Your task to perform on an android device: open a bookmark in the chrome app Image 0: 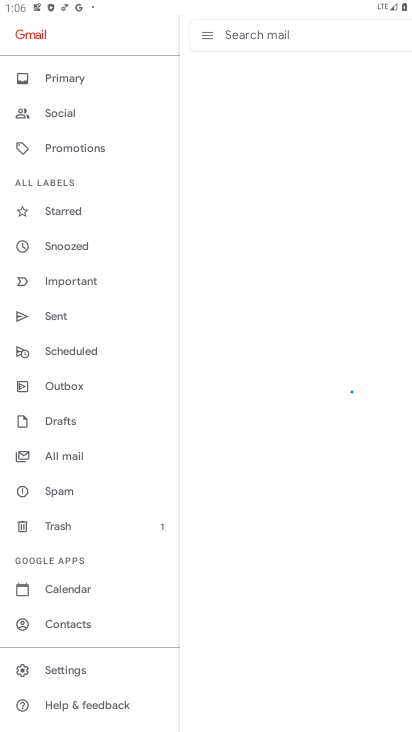
Step 0: press home button
Your task to perform on an android device: open a bookmark in the chrome app Image 1: 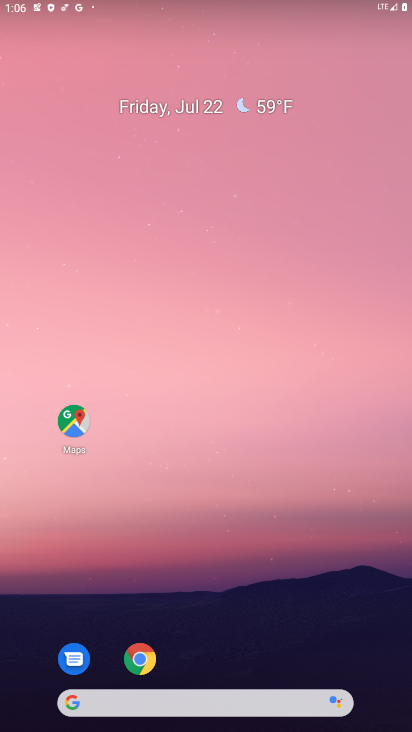
Step 1: drag from (278, 519) to (197, 5)
Your task to perform on an android device: open a bookmark in the chrome app Image 2: 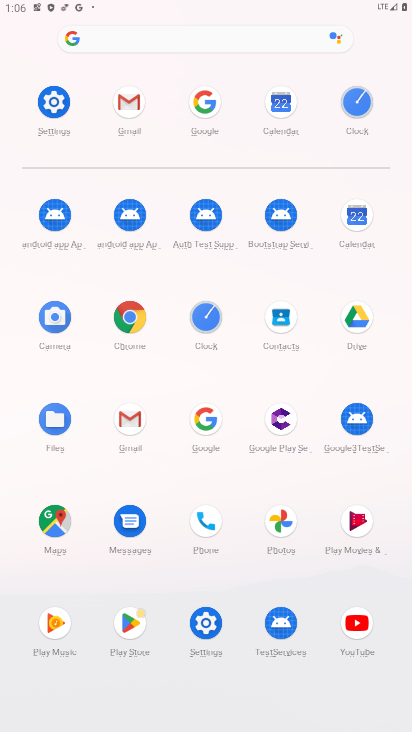
Step 2: click (125, 334)
Your task to perform on an android device: open a bookmark in the chrome app Image 3: 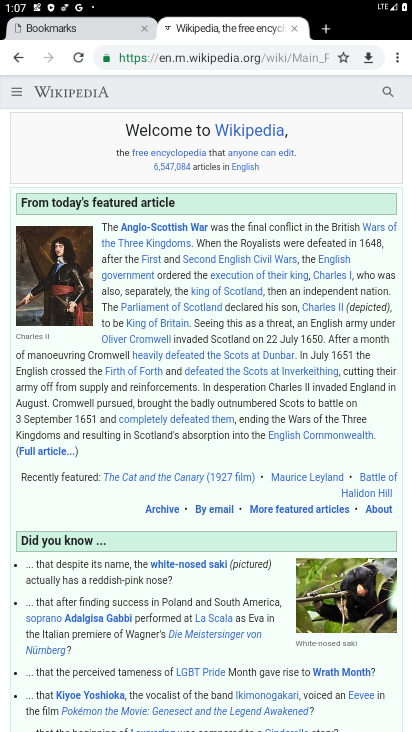
Step 3: task complete